Your task to perform on an android device: Go to privacy settings Image 0: 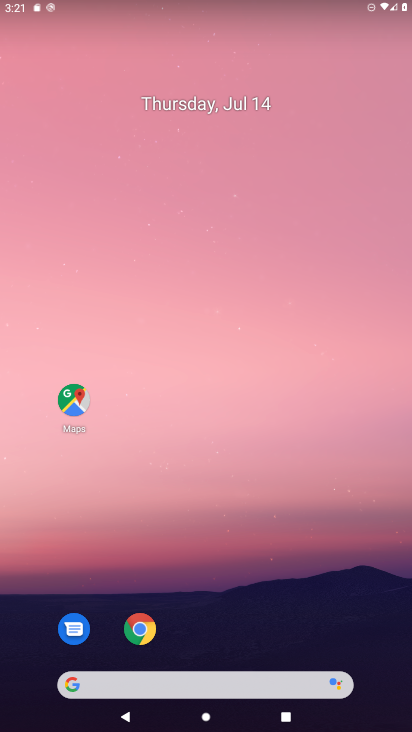
Step 0: press home button
Your task to perform on an android device: Go to privacy settings Image 1: 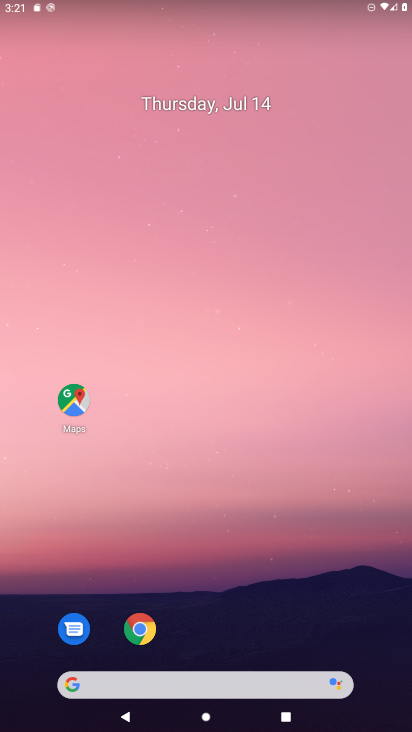
Step 1: drag from (218, 642) to (252, 53)
Your task to perform on an android device: Go to privacy settings Image 2: 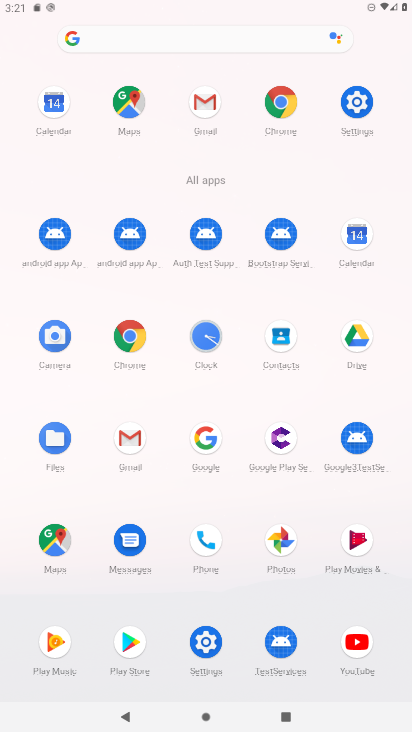
Step 2: click (355, 97)
Your task to perform on an android device: Go to privacy settings Image 3: 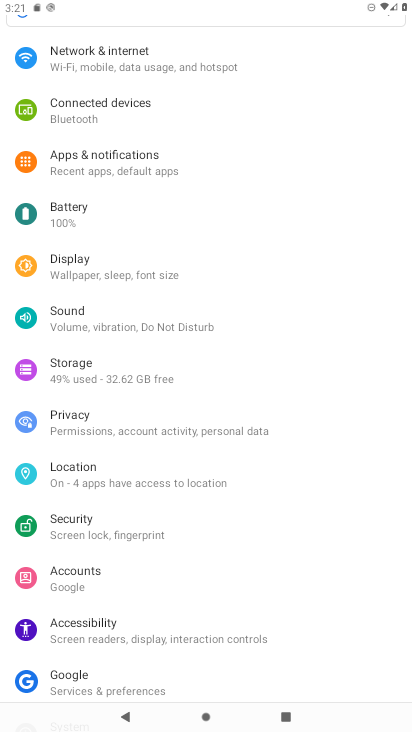
Step 3: click (116, 408)
Your task to perform on an android device: Go to privacy settings Image 4: 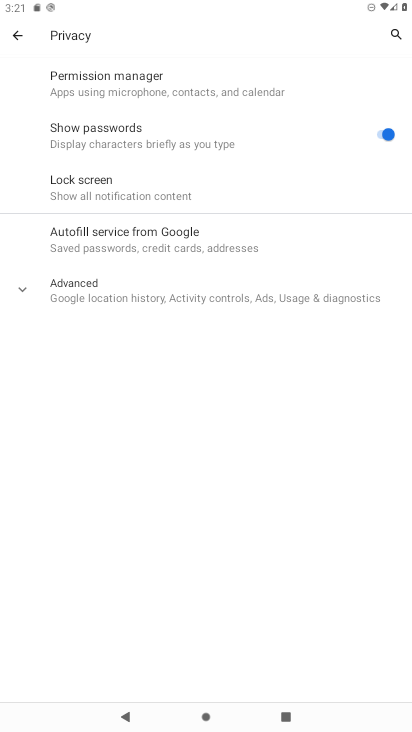
Step 4: click (30, 287)
Your task to perform on an android device: Go to privacy settings Image 5: 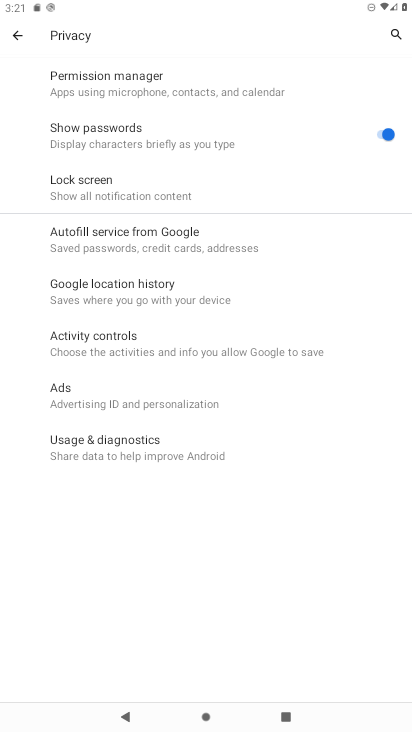
Step 5: task complete